Your task to perform on an android device: turn on improve location accuracy Image 0: 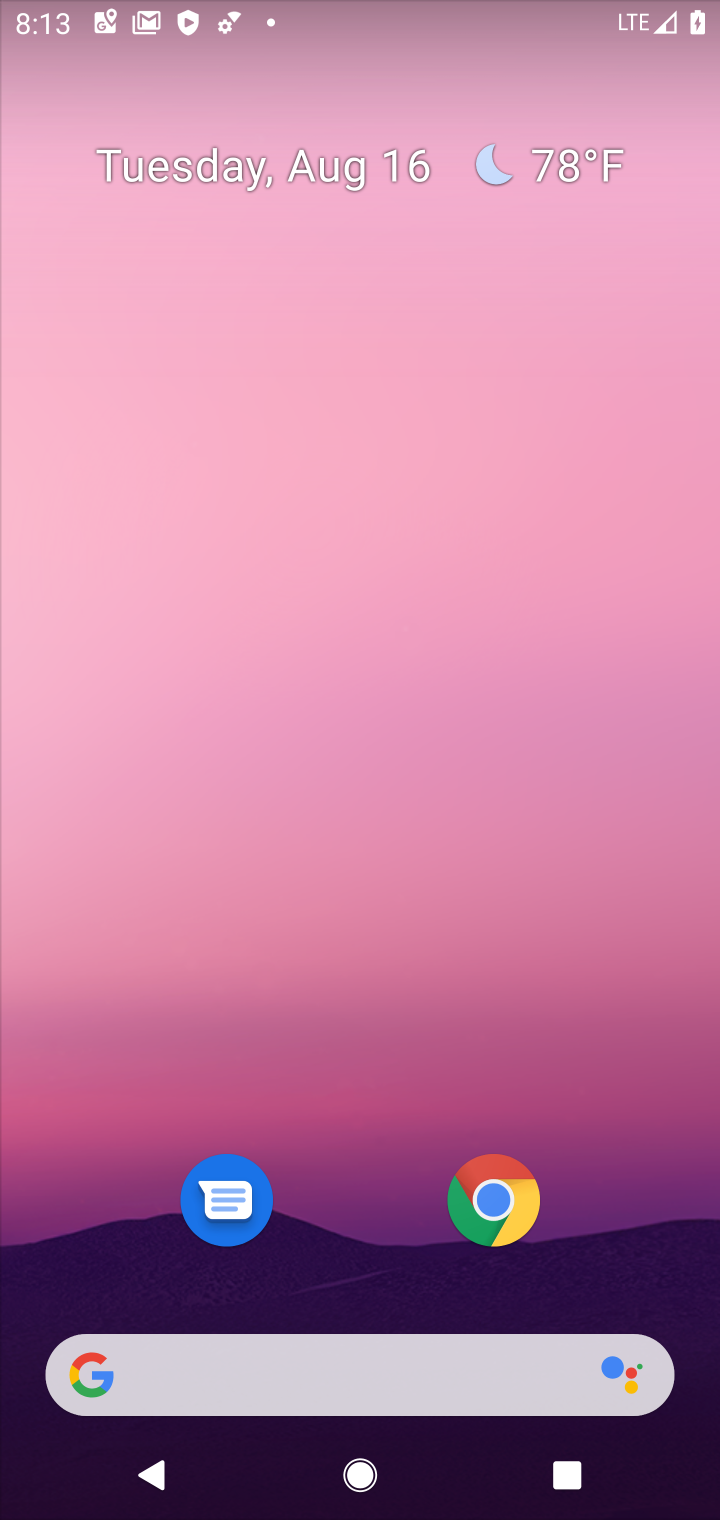
Step 0: drag from (675, 1286) to (670, 200)
Your task to perform on an android device: turn on improve location accuracy Image 1: 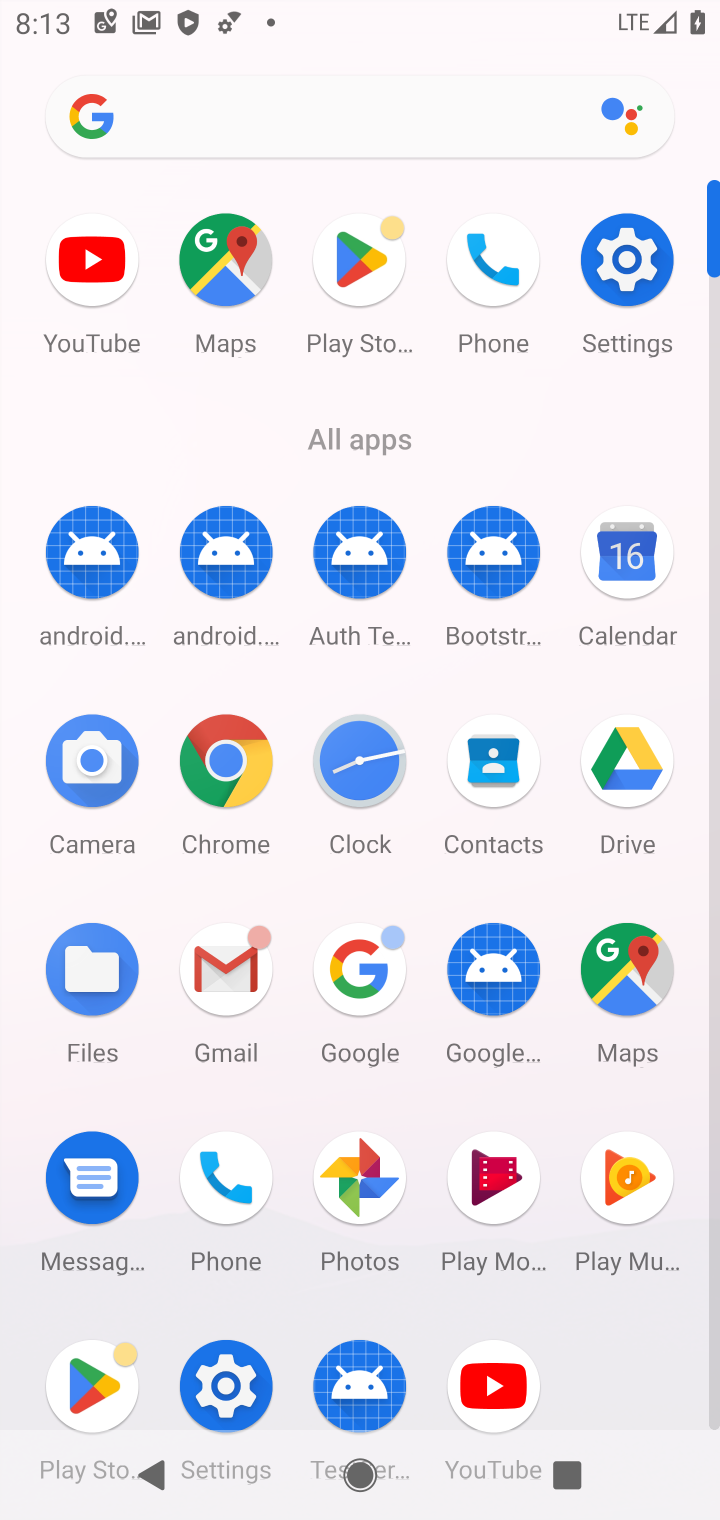
Step 1: click (232, 1387)
Your task to perform on an android device: turn on improve location accuracy Image 2: 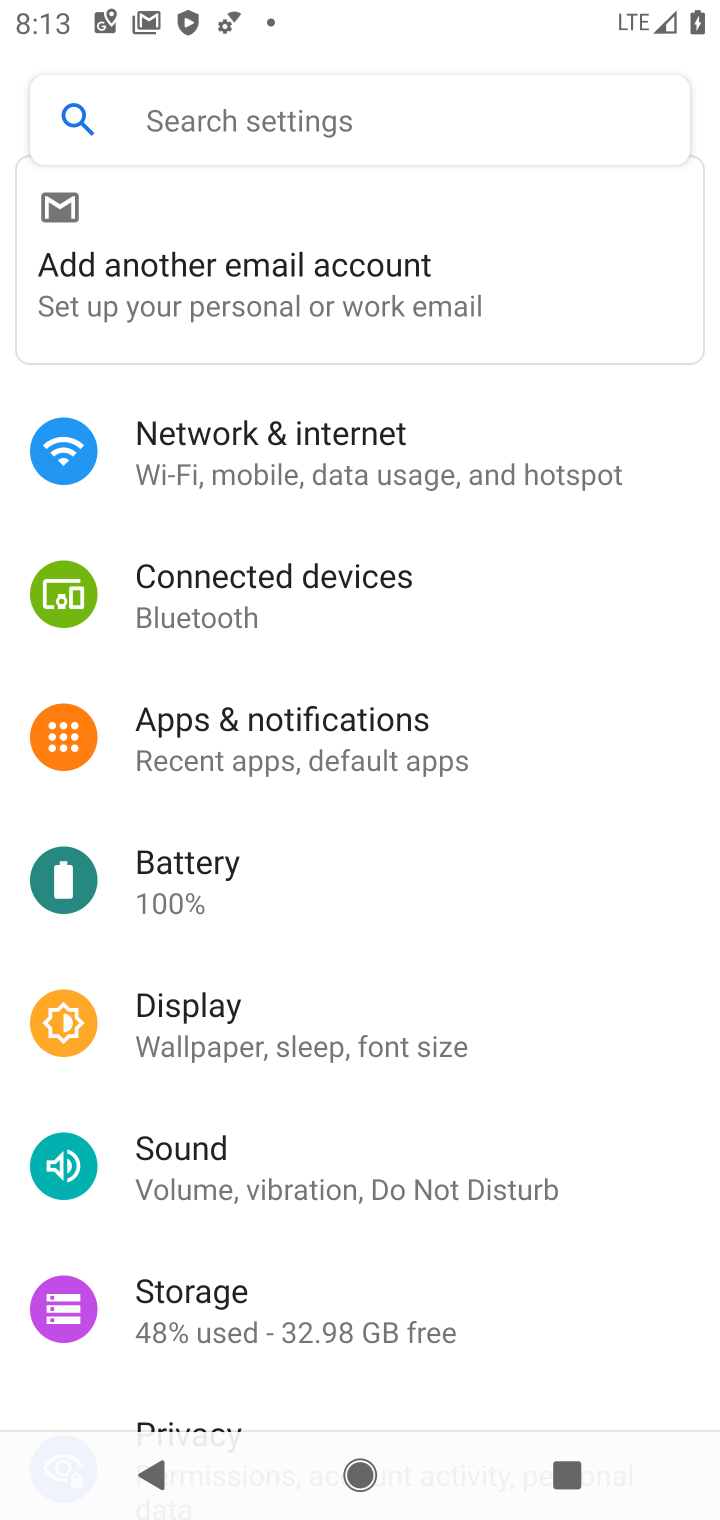
Step 2: drag from (568, 1366) to (559, 478)
Your task to perform on an android device: turn on improve location accuracy Image 3: 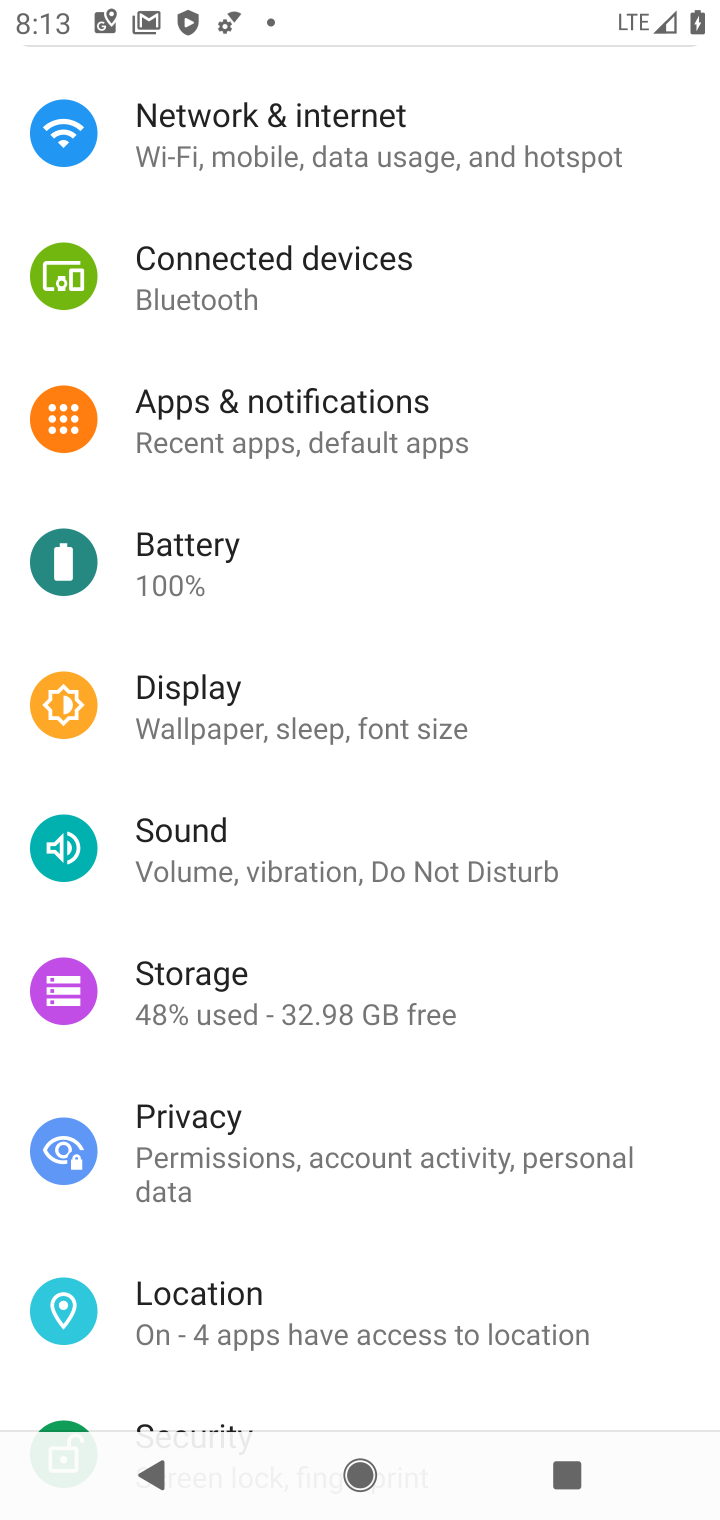
Step 3: drag from (617, 1268) to (604, 438)
Your task to perform on an android device: turn on improve location accuracy Image 4: 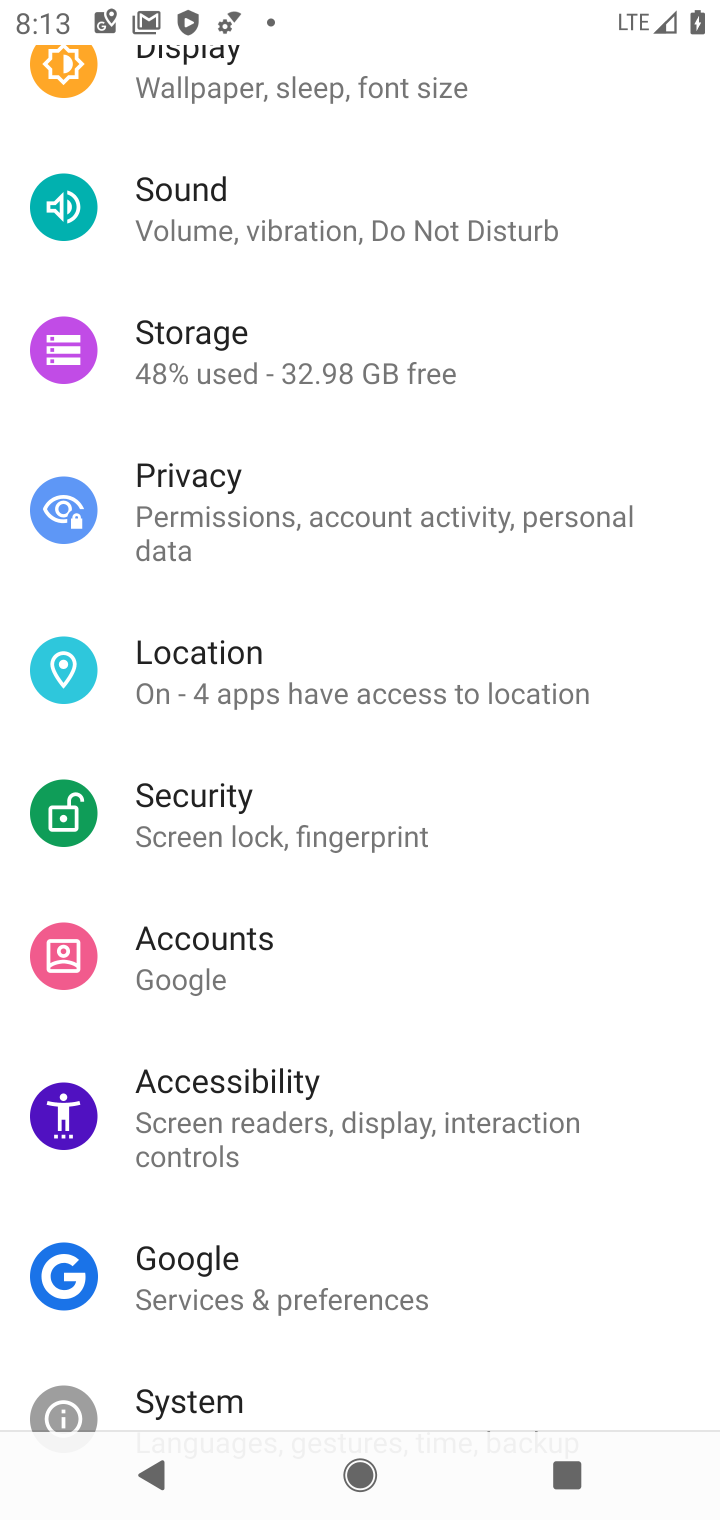
Step 4: click (198, 686)
Your task to perform on an android device: turn on improve location accuracy Image 5: 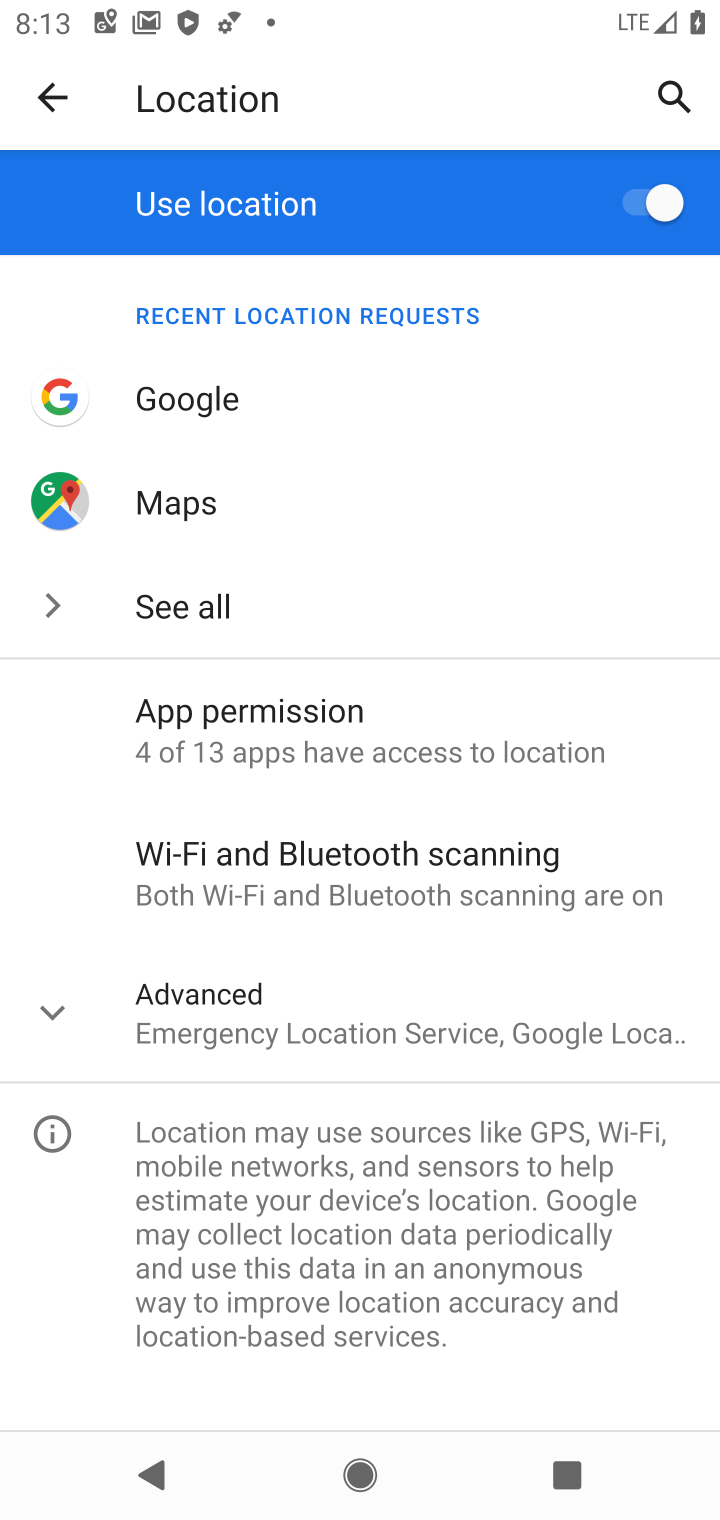
Step 5: click (60, 1005)
Your task to perform on an android device: turn on improve location accuracy Image 6: 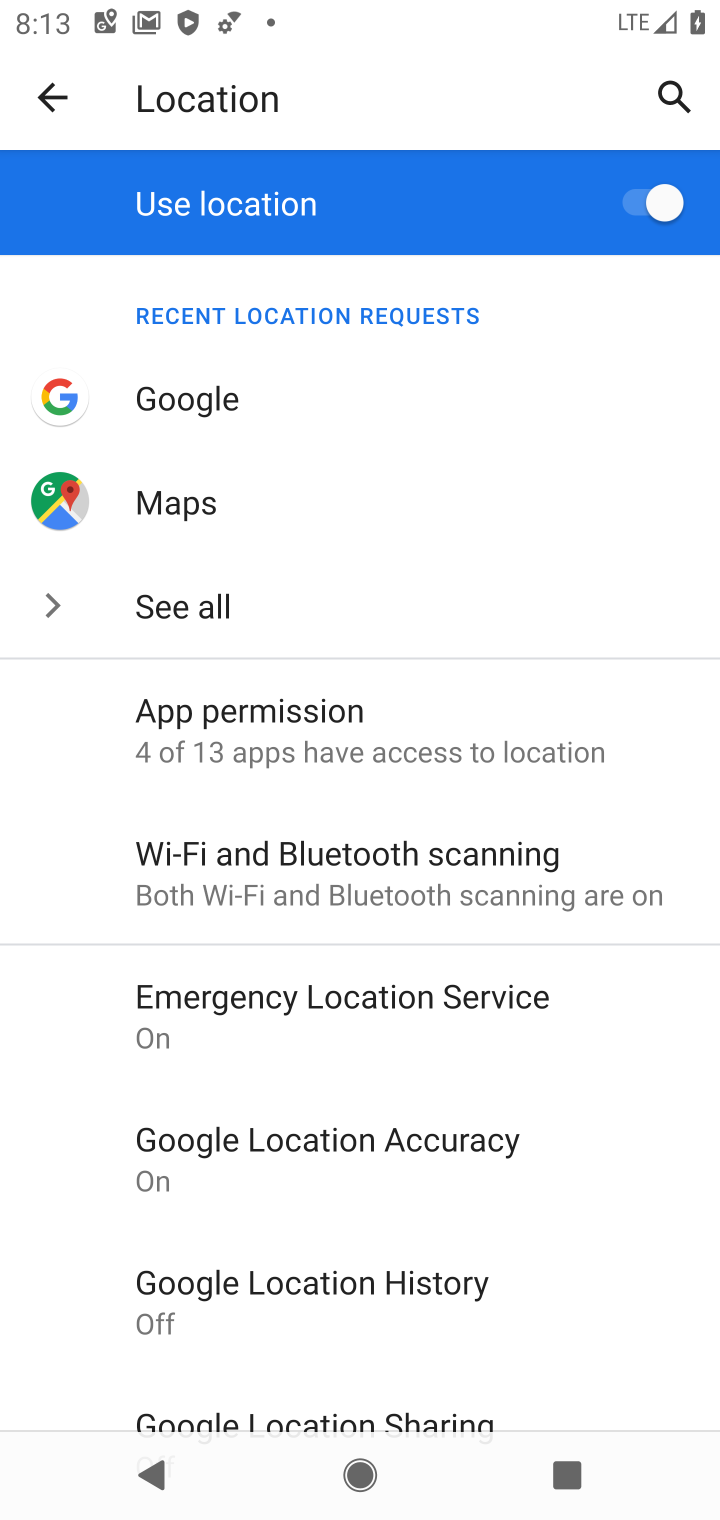
Step 6: click (335, 1143)
Your task to perform on an android device: turn on improve location accuracy Image 7: 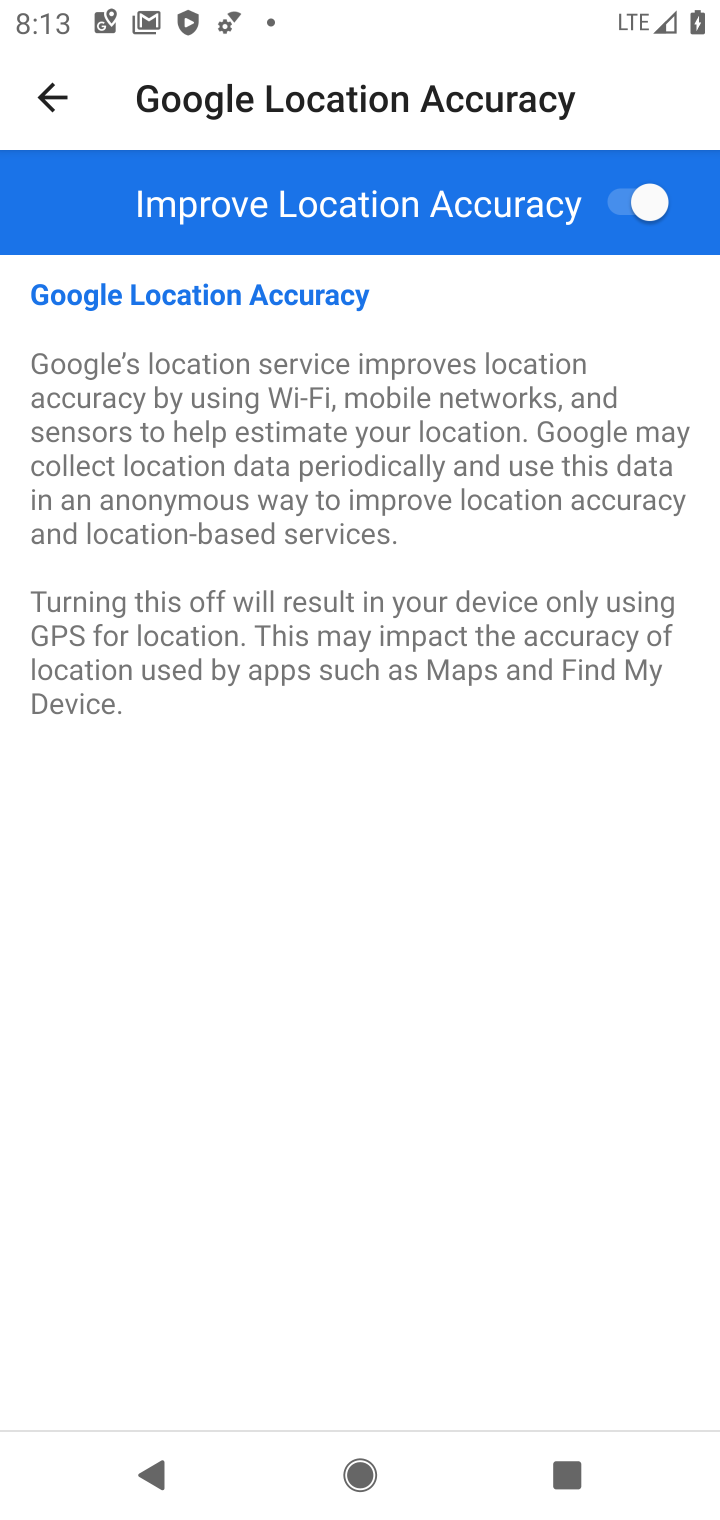
Step 7: task complete